Your task to perform on an android device: Open Chrome and go to the settings page Image 0: 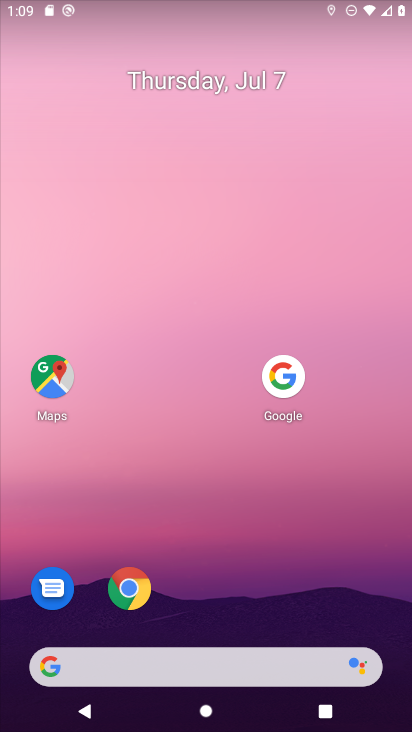
Step 0: click (130, 596)
Your task to perform on an android device: Open Chrome and go to the settings page Image 1: 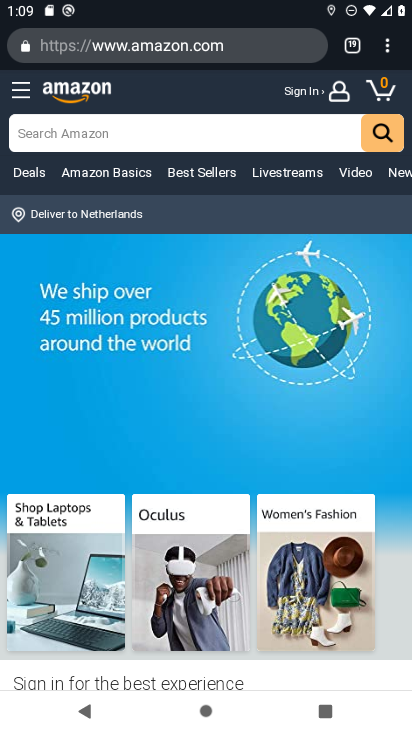
Step 1: task complete